Your task to perform on an android device: show emergency info Image 0: 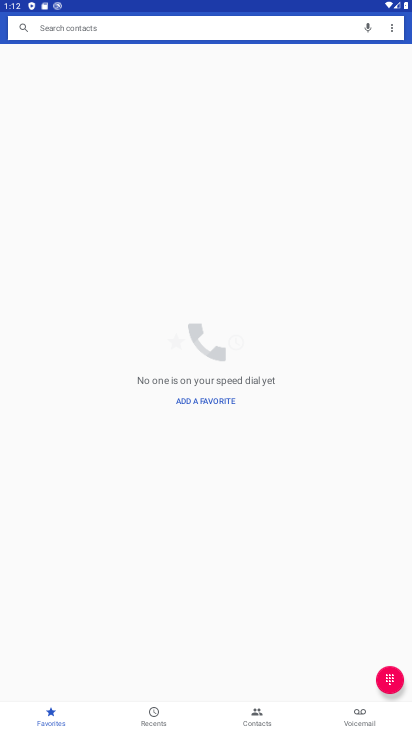
Step 0: press home button
Your task to perform on an android device: show emergency info Image 1: 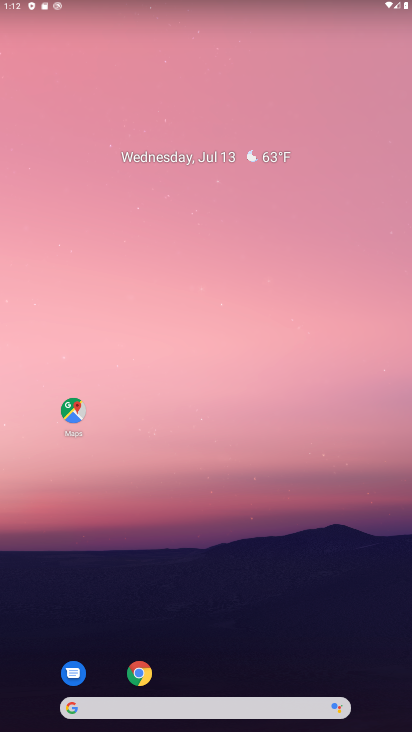
Step 1: drag from (196, 694) to (249, 174)
Your task to perform on an android device: show emergency info Image 2: 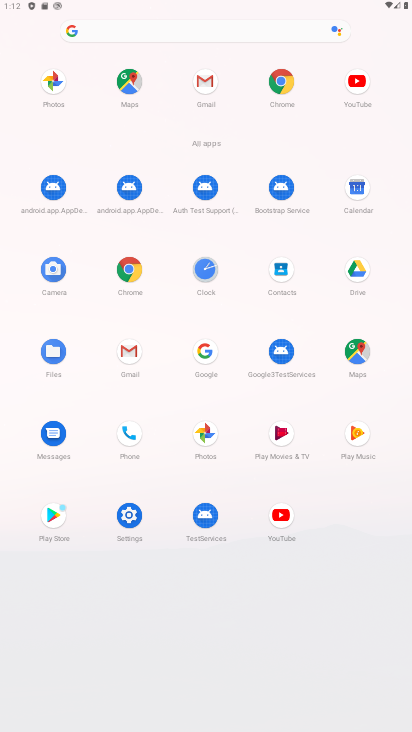
Step 2: click (141, 512)
Your task to perform on an android device: show emergency info Image 3: 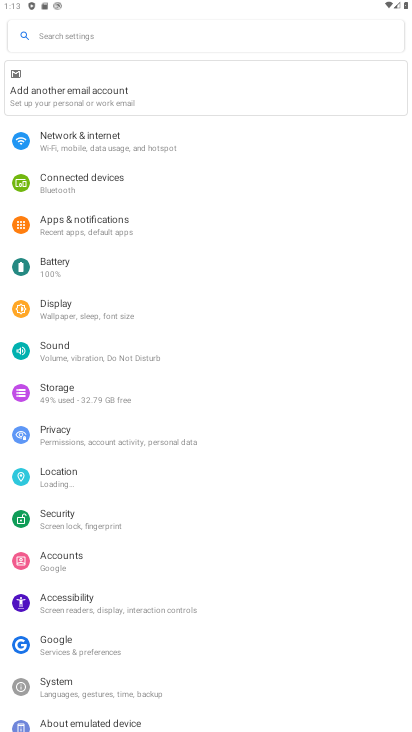
Step 3: drag from (158, 700) to (193, 369)
Your task to perform on an android device: show emergency info Image 4: 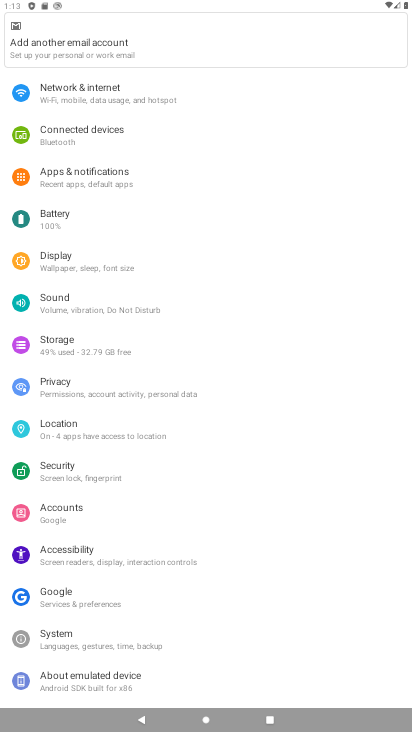
Step 4: click (96, 679)
Your task to perform on an android device: show emergency info Image 5: 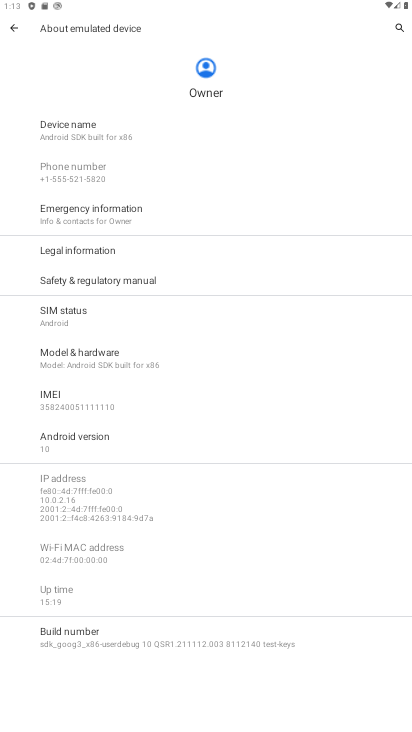
Step 5: click (85, 201)
Your task to perform on an android device: show emergency info Image 6: 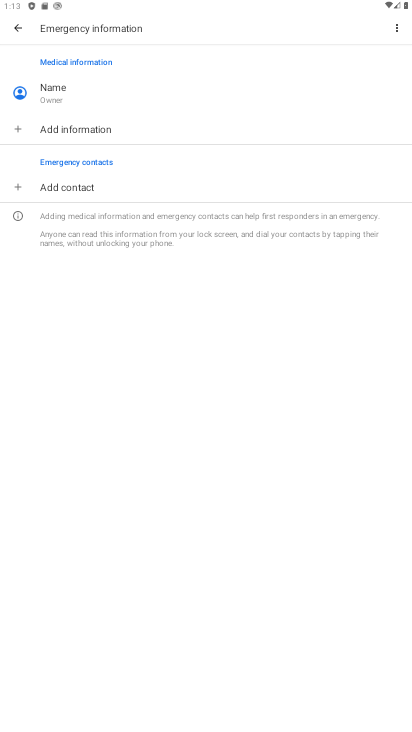
Step 6: task complete